Your task to perform on an android device: check data usage Image 0: 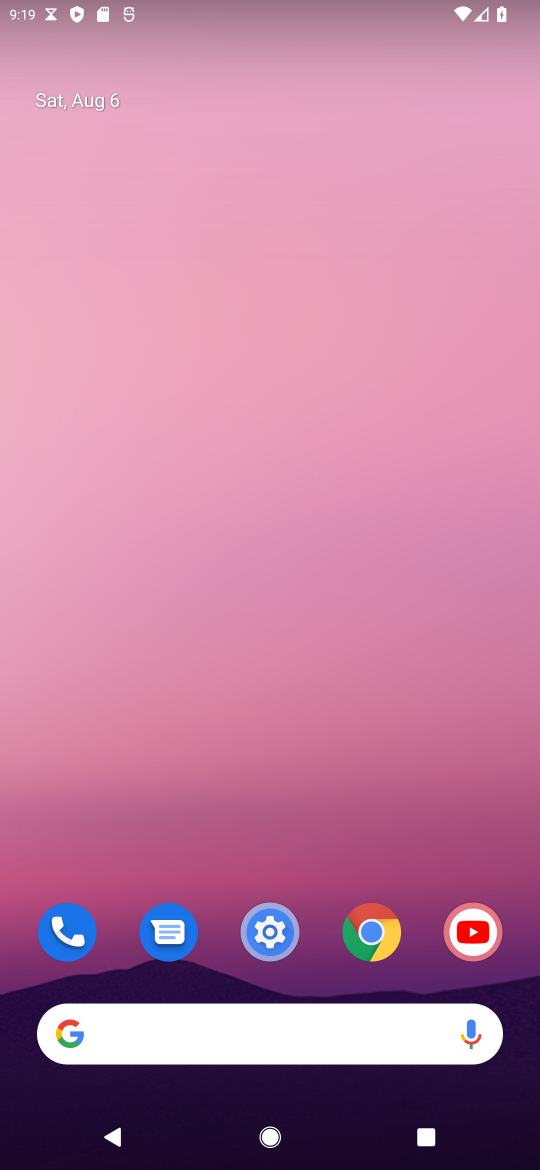
Step 0: press home button
Your task to perform on an android device: check data usage Image 1: 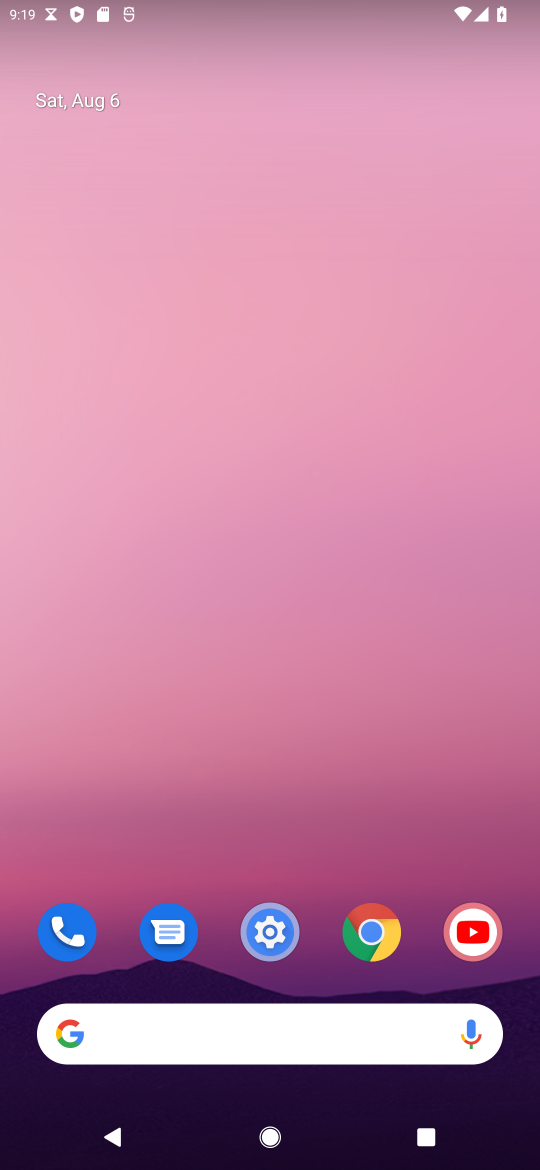
Step 1: click (272, 929)
Your task to perform on an android device: check data usage Image 2: 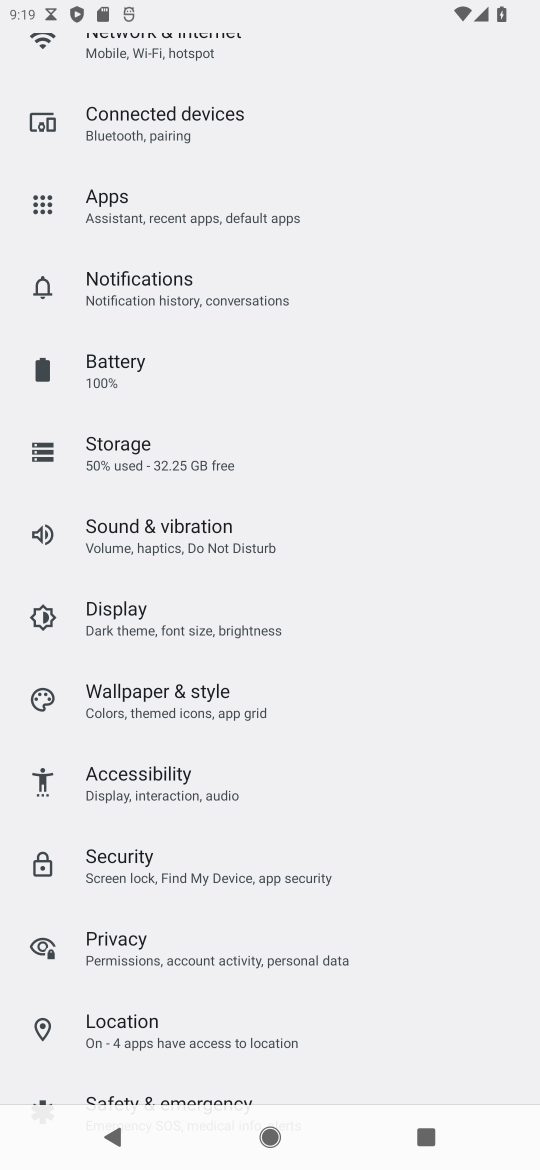
Step 2: drag from (220, 410) to (204, 737)
Your task to perform on an android device: check data usage Image 3: 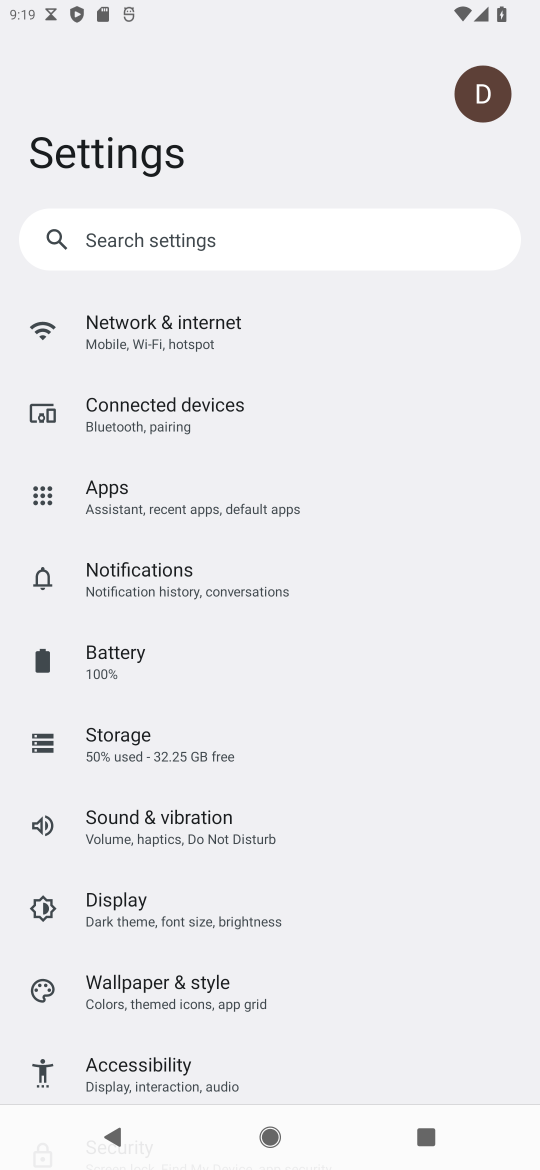
Step 3: click (166, 332)
Your task to perform on an android device: check data usage Image 4: 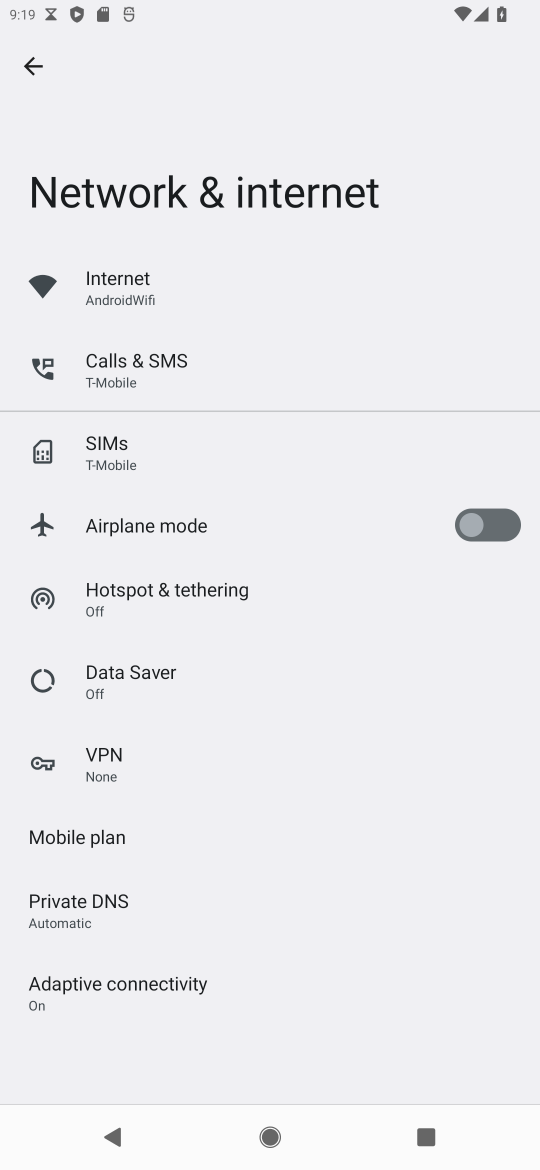
Step 4: click (121, 289)
Your task to perform on an android device: check data usage Image 5: 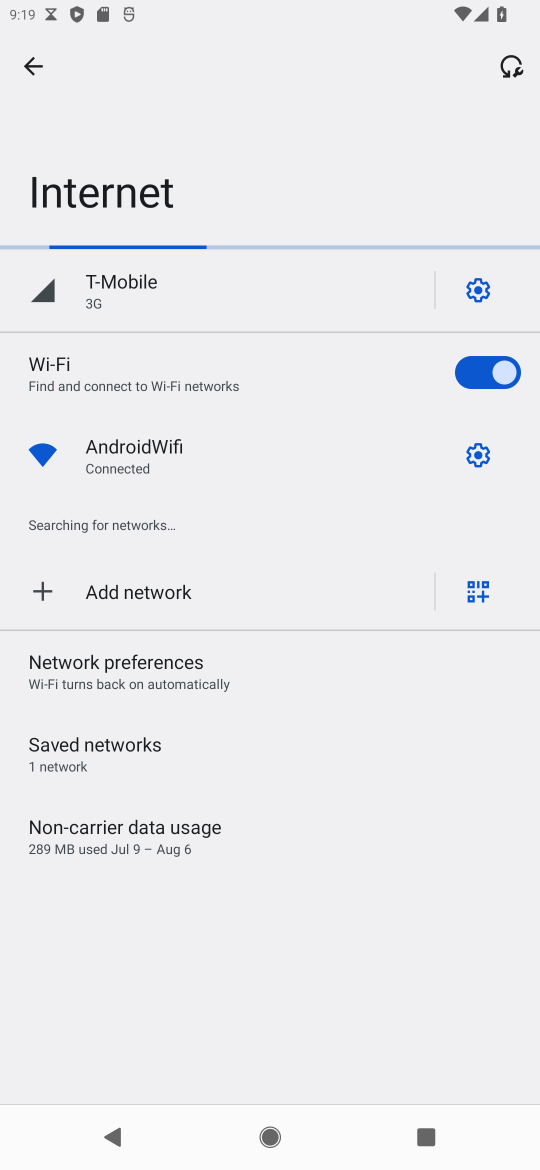
Step 5: click (485, 282)
Your task to perform on an android device: check data usage Image 6: 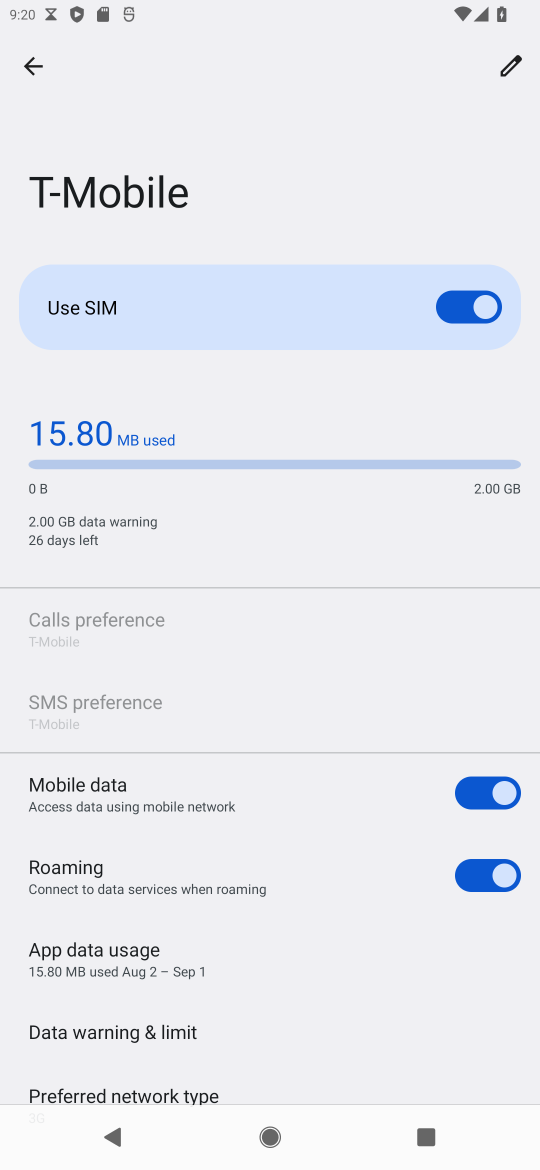
Step 6: task complete